Your task to perform on an android device: What is the news today? Image 0: 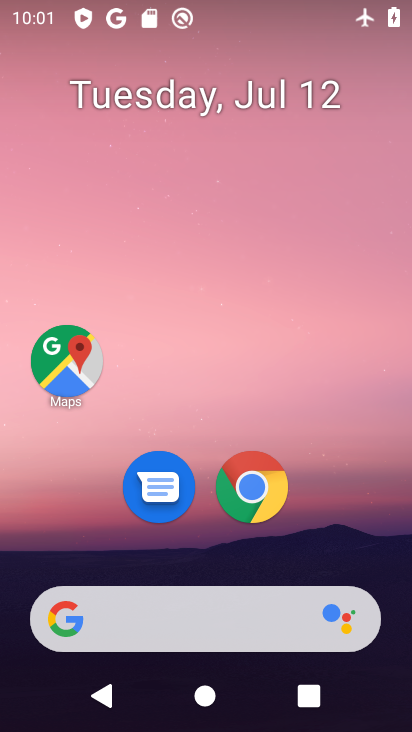
Step 0: click (276, 497)
Your task to perform on an android device: What is the news today? Image 1: 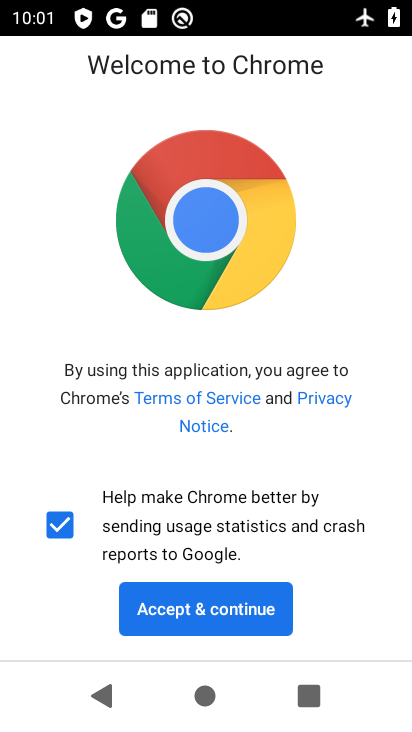
Step 1: click (242, 594)
Your task to perform on an android device: What is the news today? Image 2: 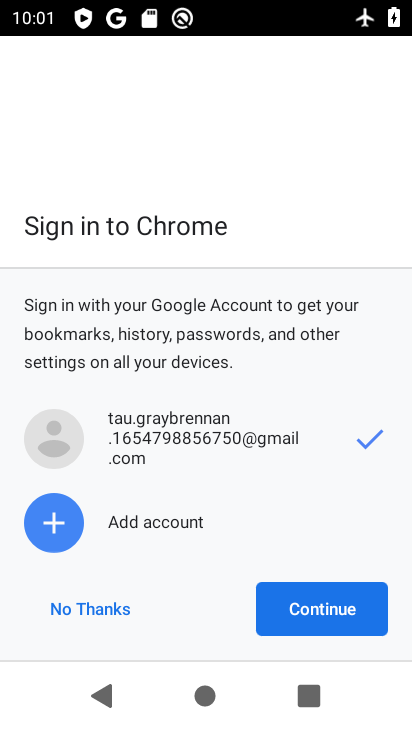
Step 2: click (306, 608)
Your task to perform on an android device: What is the news today? Image 3: 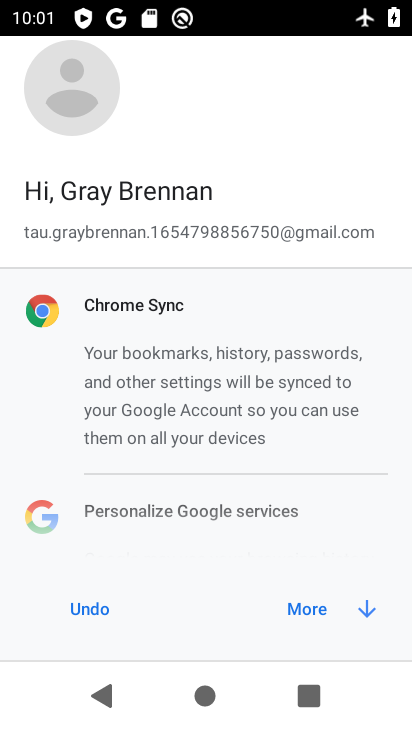
Step 3: click (306, 608)
Your task to perform on an android device: What is the news today? Image 4: 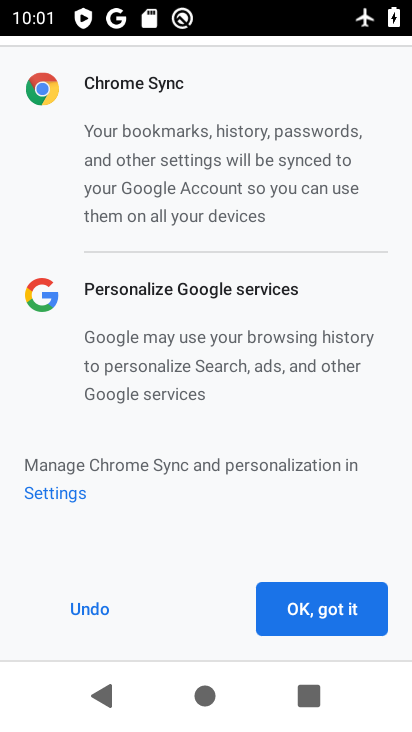
Step 4: click (308, 612)
Your task to perform on an android device: What is the news today? Image 5: 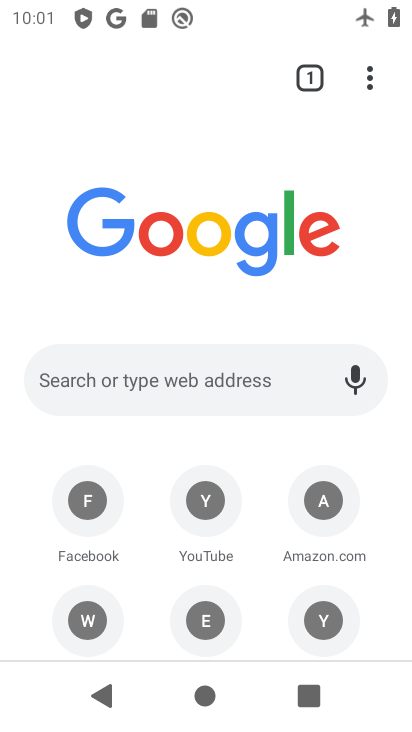
Step 5: click (283, 381)
Your task to perform on an android device: What is the news today? Image 6: 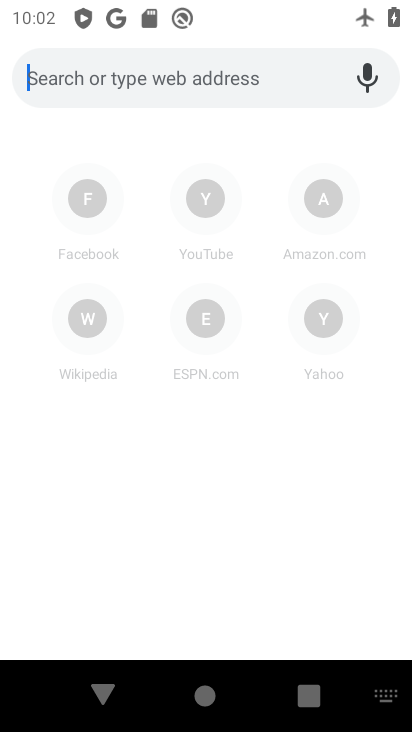
Step 6: type "What is the news today?"
Your task to perform on an android device: What is the news today? Image 7: 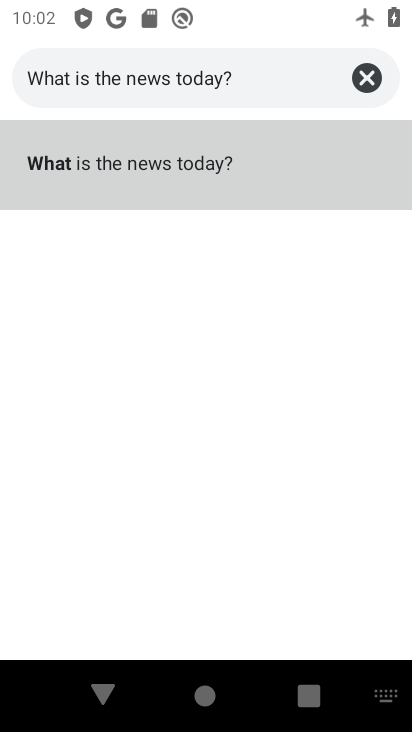
Step 7: click (227, 150)
Your task to perform on an android device: What is the news today? Image 8: 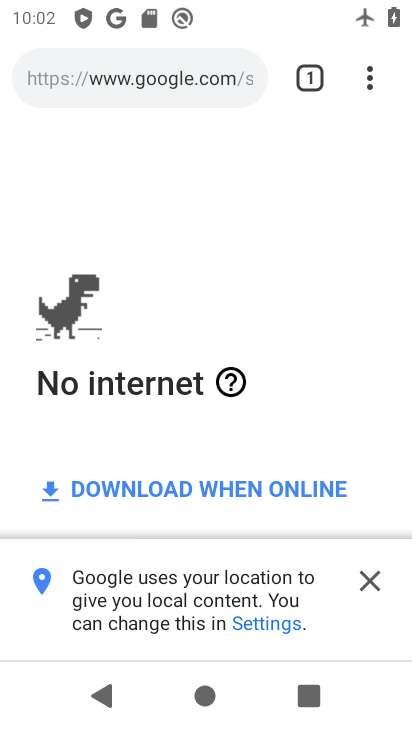
Step 8: click (376, 582)
Your task to perform on an android device: What is the news today? Image 9: 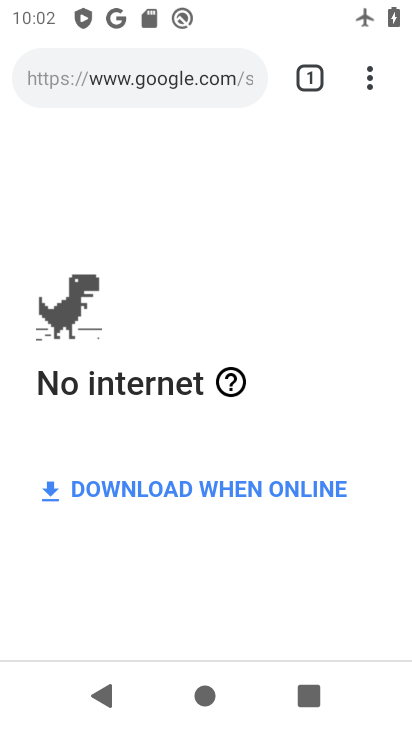
Step 9: task complete